Your task to perform on an android device: Open CNN.com Image 0: 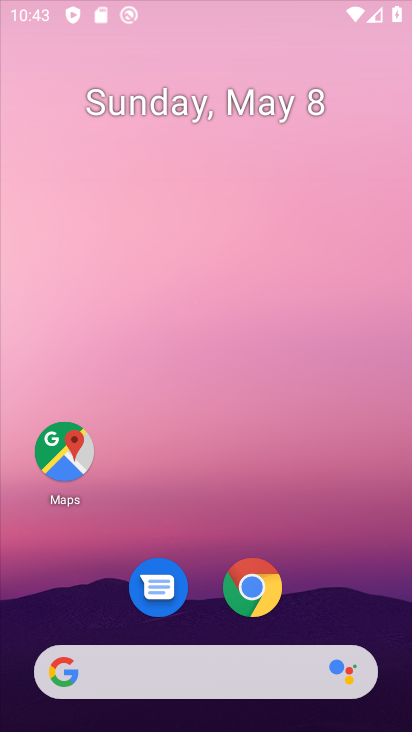
Step 0: drag from (371, 648) to (253, 90)
Your task to perform on an android device: Open CNN.com Image 1: 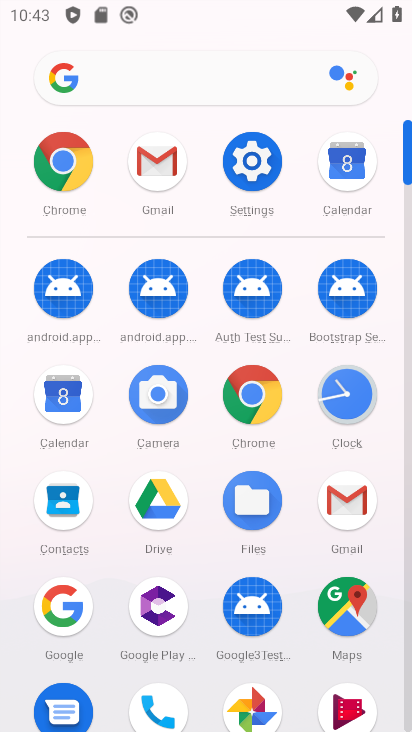
Step 1: click (61, 161)
Your task to perform on an android device: Open CNN.com Image 2: 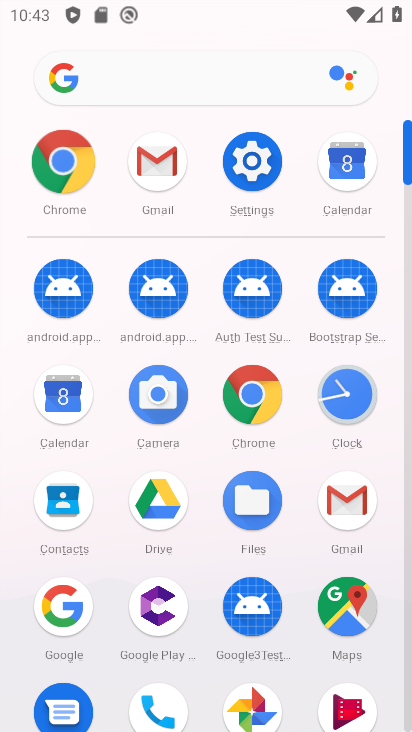
Step 2: click (61, 162)
Your task to perform on an android device: Open CNN.com Image 3: 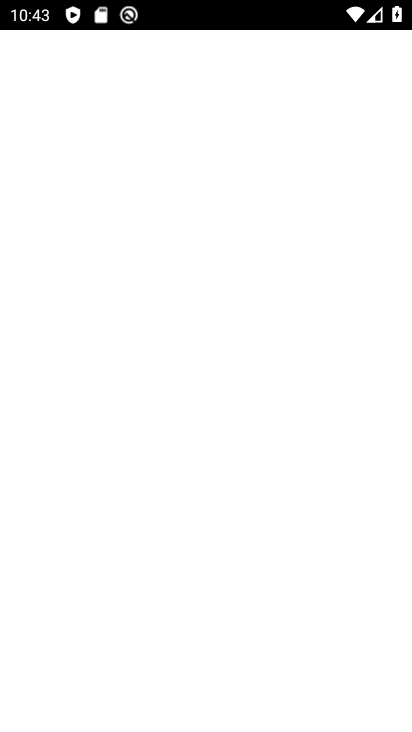
Step 3: click (62, 163)
Your task to perform on an android device: Open CNN.com Image 4: 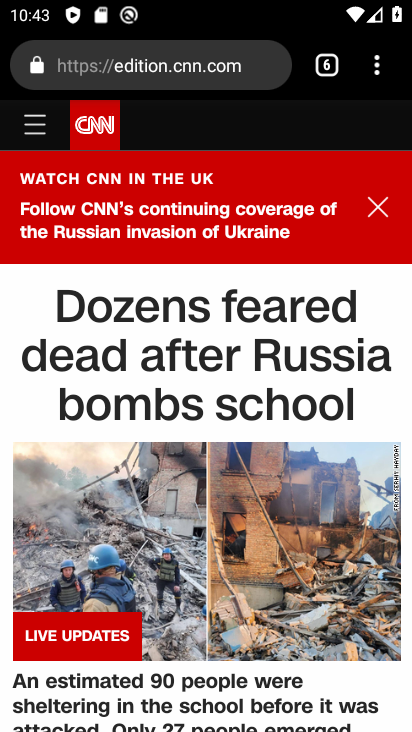
Step 4: drag from (380, 60) to (122, 130)
Your task to perform on an android device: Open CNN.com Image 5: 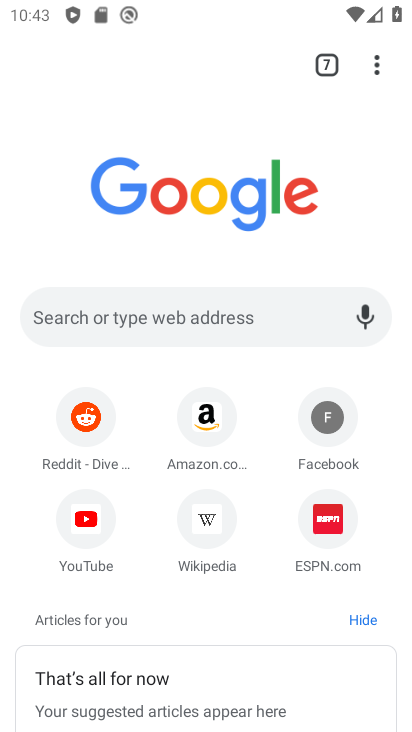
Step 5: click (54, 320)
Your task to perform on an android device: Open CNN.com Image 6: 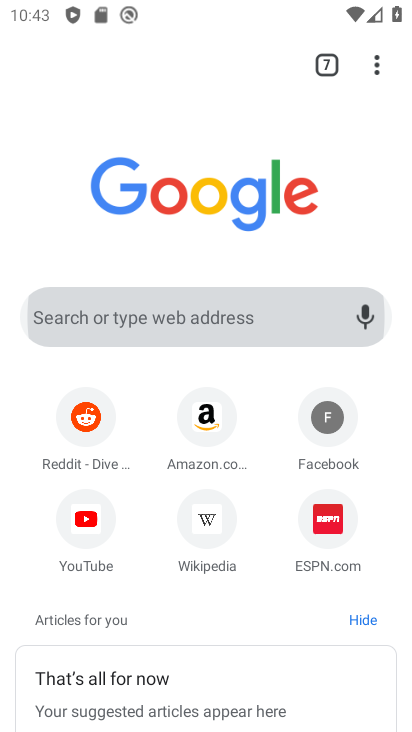
Step 6: click (53, 321)
Your task to perform on an android device: Open CNN.com Image 7: 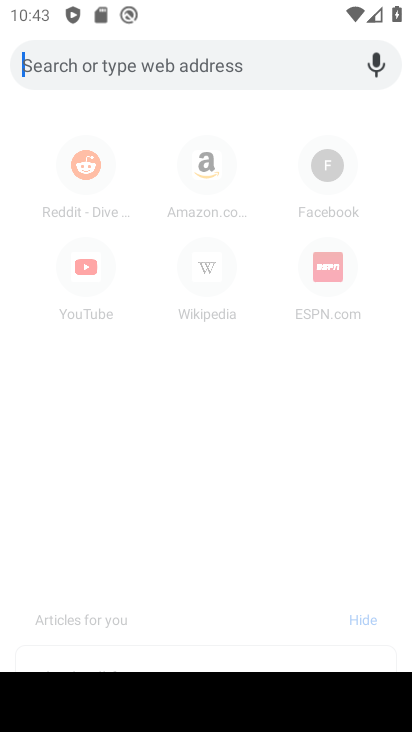
Step 7: type "cnn.com"
Your task to perform on an android device: Open CNN.com Image 8: 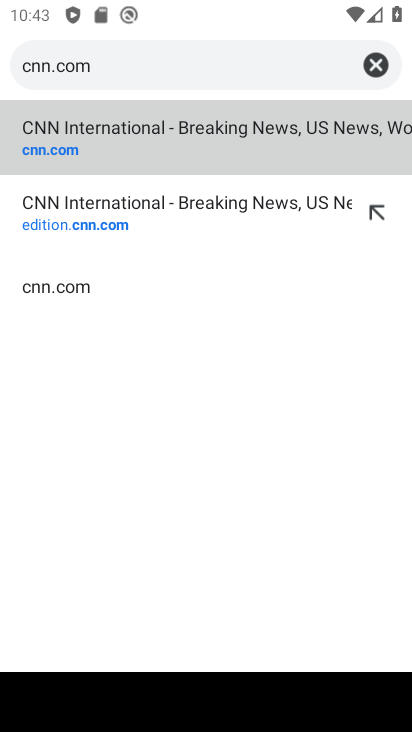
Step 8: click (66, 162)
Your task to perform on an android device: Open CNN.com Image 9: 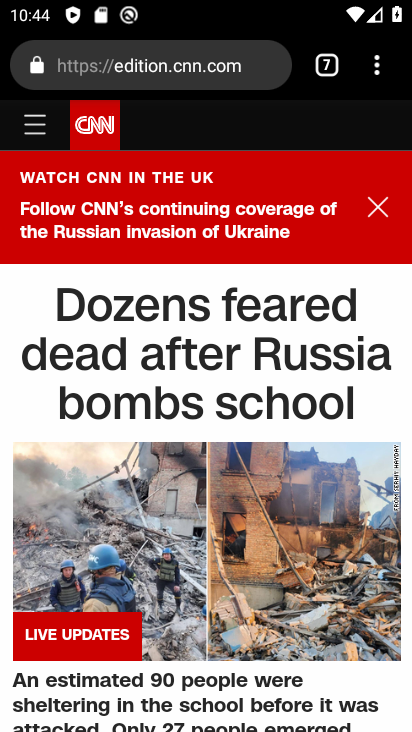
Step 9: task complete